Your task to perform on an android device: see tabs open on other devices in the chrome app Image 0: 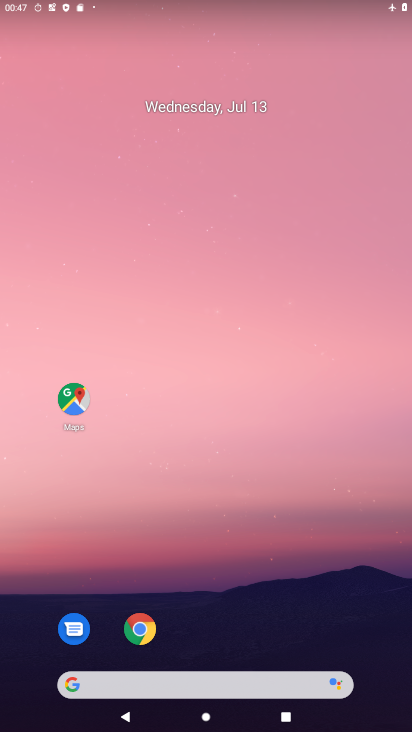
Step 0: click (150, 616)
Your task to perform on an android device: see tabs open on other devices in the chrome app Image 1: 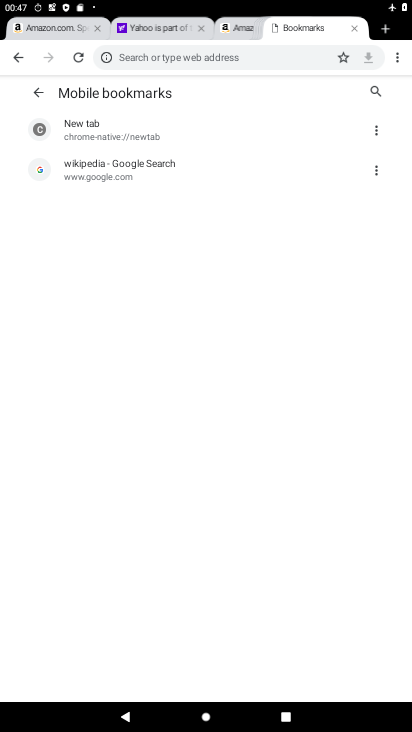
Step 1: click (395, 57)
Your task to perform on an android device: see tabs open on other devices in the chrome app Image 2: 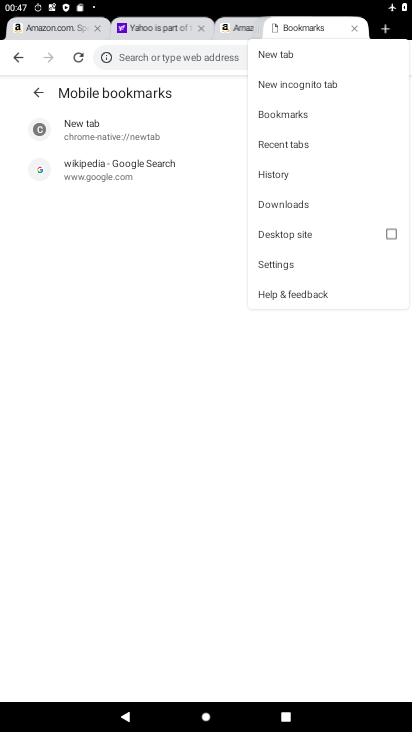
Step 2: click (320, 145)
Your task to perform on an android device: see tabs open on other devices in the chrome app Image 3: 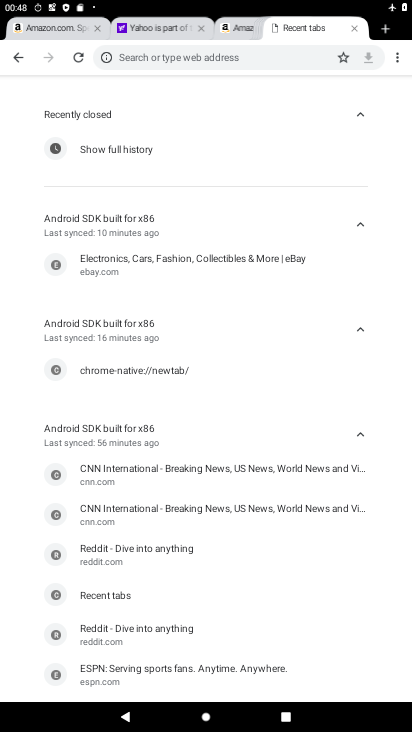
Step 3: task complete